Your task to perform on an android device: Search for Italian restaurants on Maps Image 0: 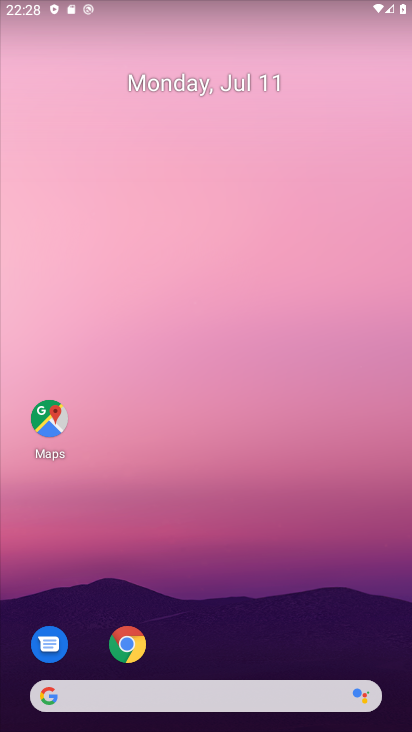
Step 0: drag from (218, 326) to (218, 263)
Your task to perform on an android device: Search for Italian restaurants on Maps Image 1: 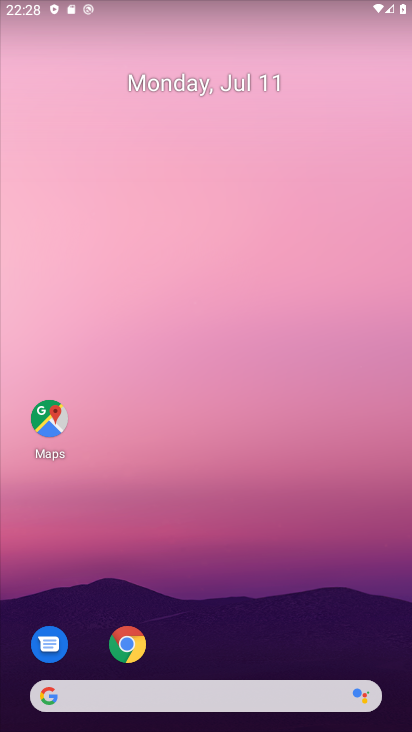
Step 1: click (46, 413)
Your task to perform on an android device: Search for Italian restaurants on Maps Image 2: 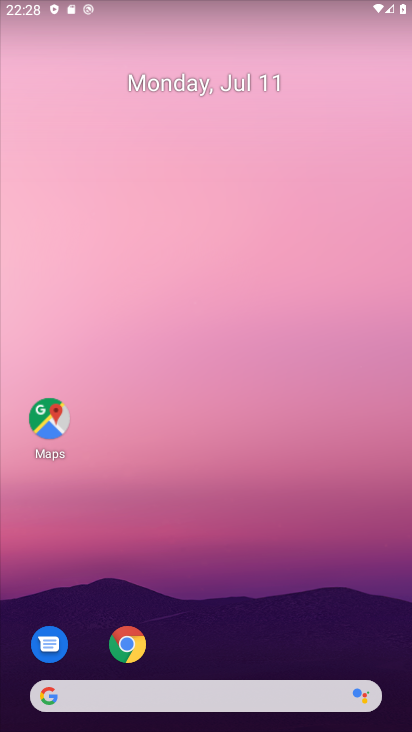
Step 2: click (42, 412)
Your task to perform on an android device: Search for Italian restaurants on Maps Image 3: 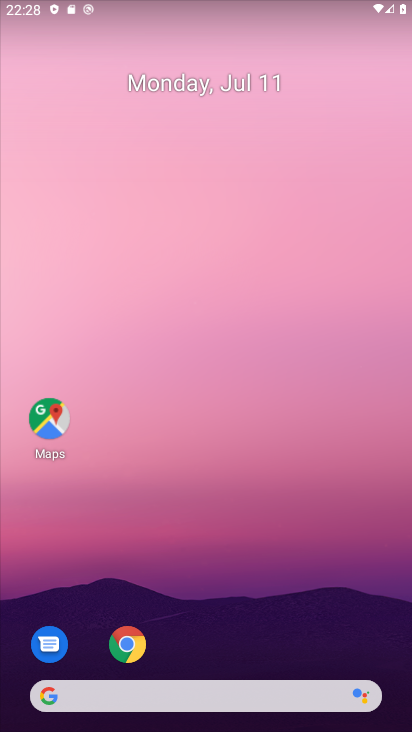
Step 3: click (41, 413)
Your task to perform on an android device: Search for Italian restaurants on Maps Image 4: 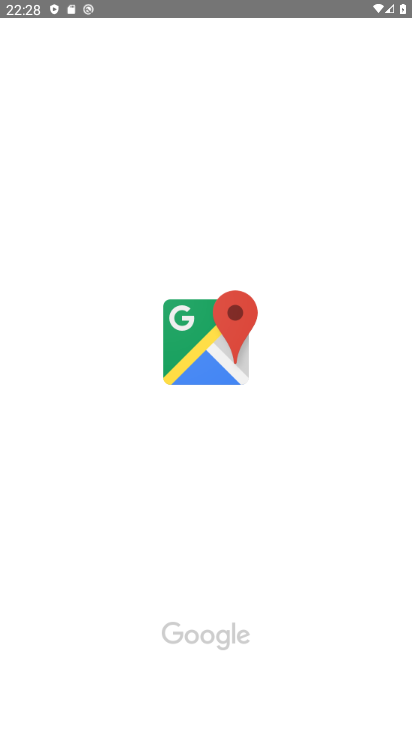
Step 4: click (42, 414)
Your task to perform on an android device: Search for Italian restaurants on Maps Image 5: 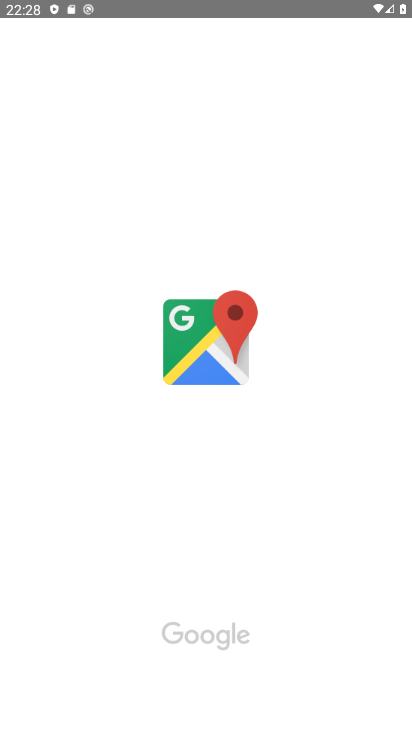
Step 5: click (42, 414)
Your task to perform on an android device: Search for Italian restaurants on Maps Image 6: 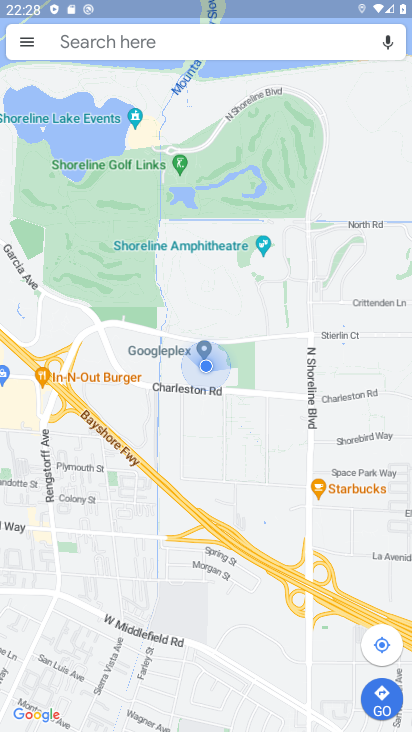
Step 6: click (86, 60)
Your task to perform on an android device: Search for Italian restaurants on Maps Image 7: 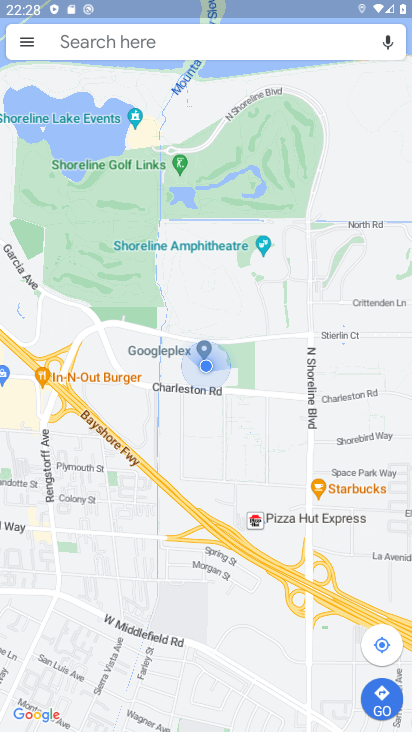
Step 7: click (69, 29)
Your task to perform on an android device: Search for Italian restaurants on Maps Image 8: 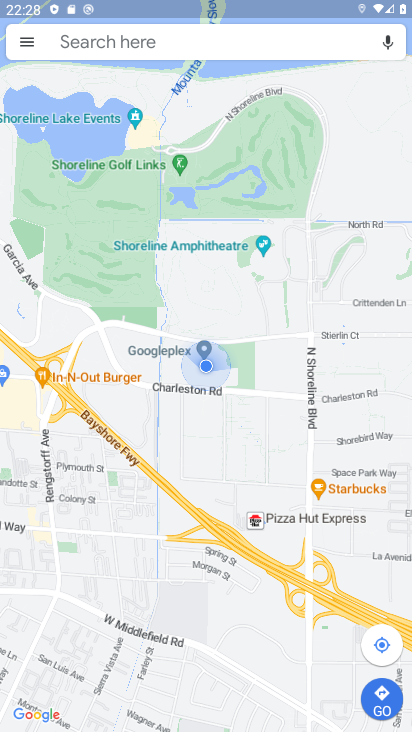
Step 8: click (78, 42)
Your task to perform on an android device: Search for Italian restaurants on Maps Image 9: 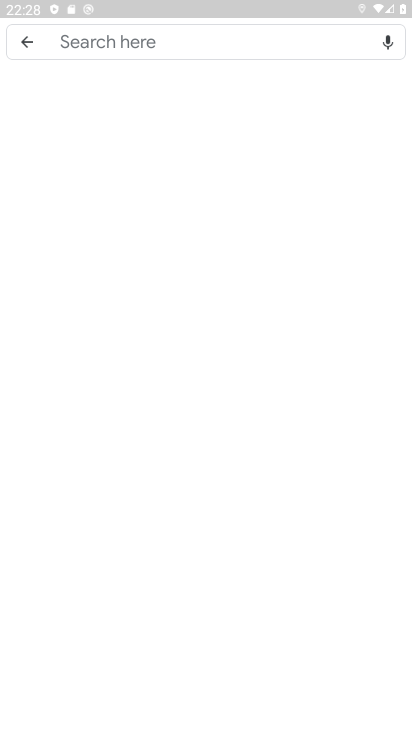
Step 9: click (94, 56)
Your task to perform on an android device: Search for Italian restaurants on Maps Image 10: 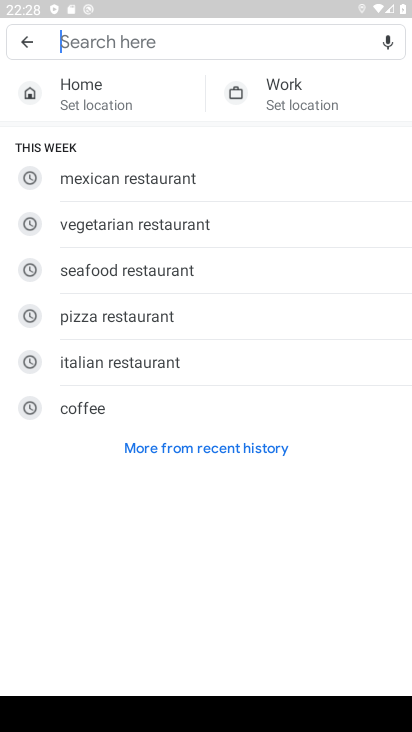
Step 10: click (111, 360)
Your task to perform on an android device: Search for Italian restaurants on Maps Image 11: 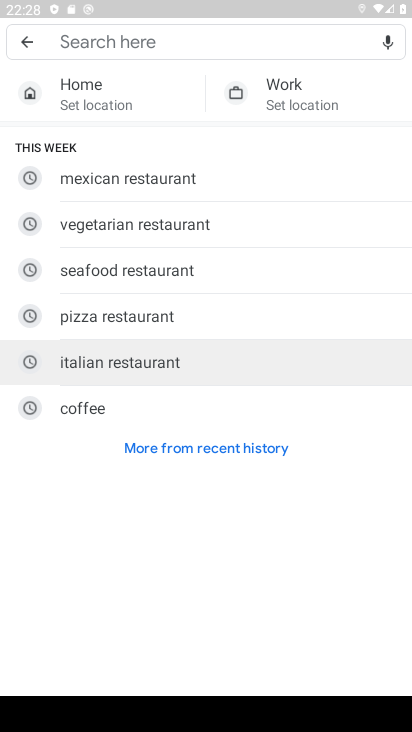
Step 11: click (113, 360)
Your task to perform on an android device: Search for Italian restaurants on Maps Image 12: 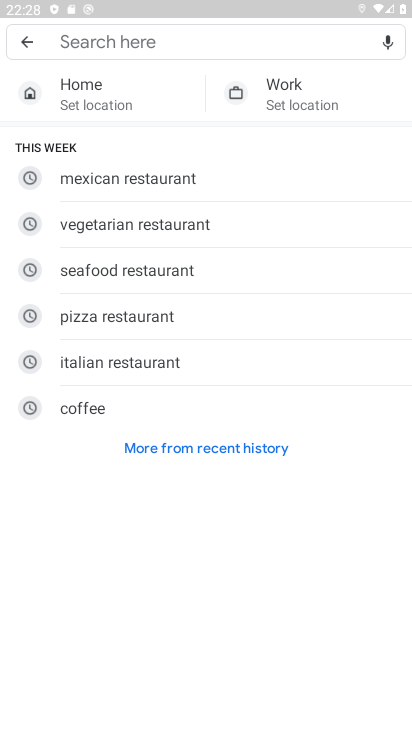
Step 12: click (113, 360)
Your task to perform on an android device: Search for Italian restaurants on Maps Image 13: 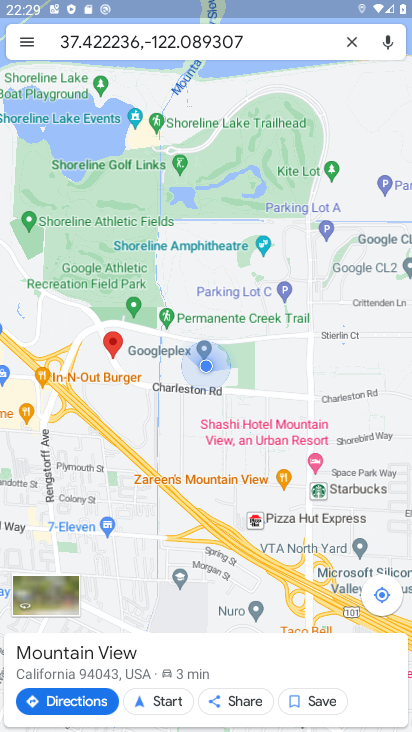
Step 13: task complete